Your task to perform on an android device: Do I have any events this weekend? Image 0: 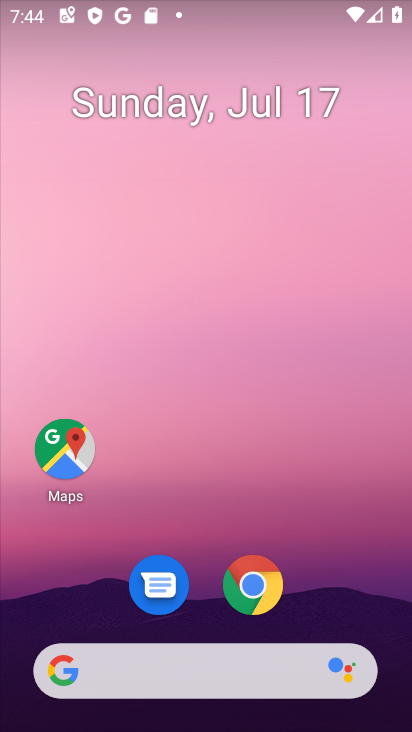
Step 0: drag from (311, 517) to (321, 69)
Your task to perform on an android device: Do I have any events this weekend? Image 1: 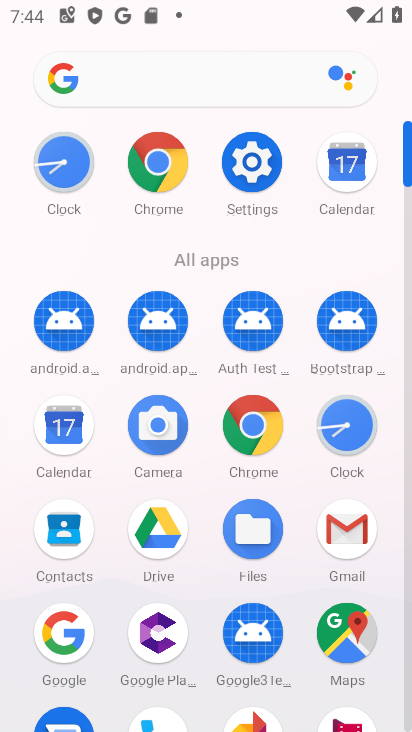
Step 1: click (360, 171)
Your task to perform on an android device: Do I have any events this weekend? Image 2: 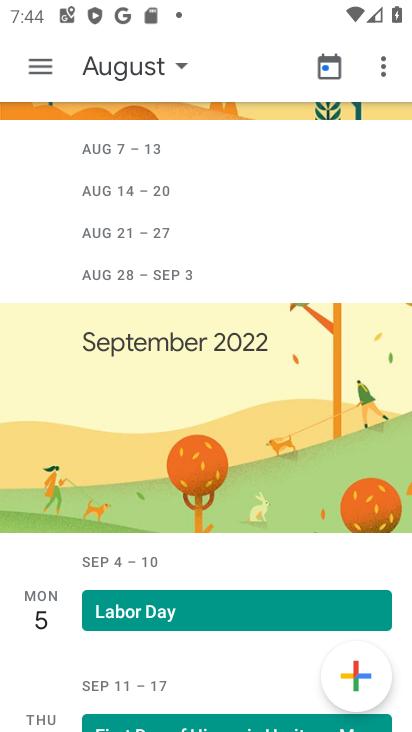
Step 2: click (38, 68)
Your task to perform on an android device: Do I have any events this weekend? Image 3: 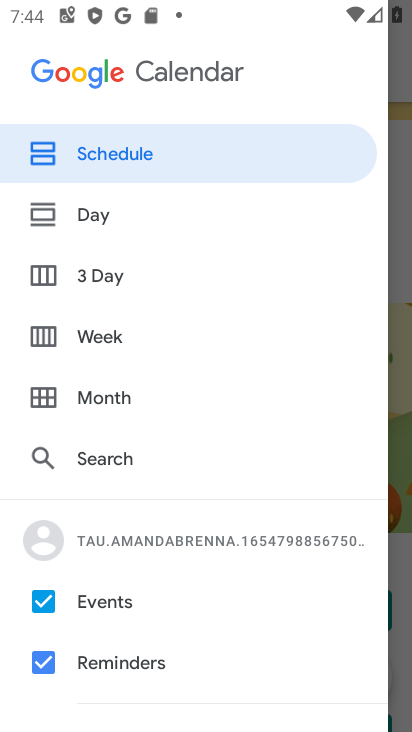
Step 3: click (46, 340)
Your task to perform on an android device: Do I have any events this weekend? Image 4: 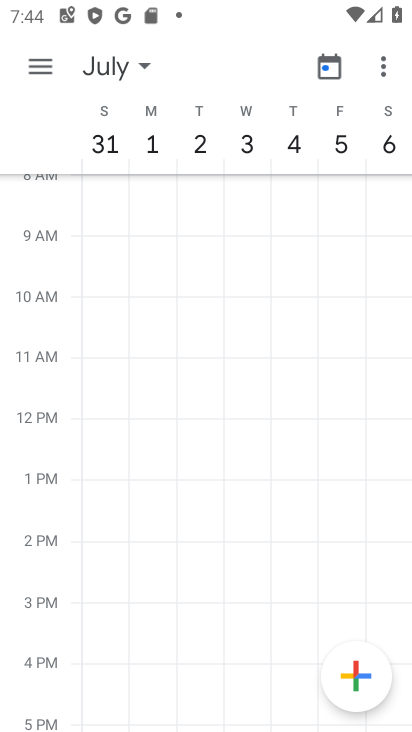
Step 4: drag from (104, 400) to (405, 399)
Your task to perform on an android device: Do I have any events this weekend? Image 5: 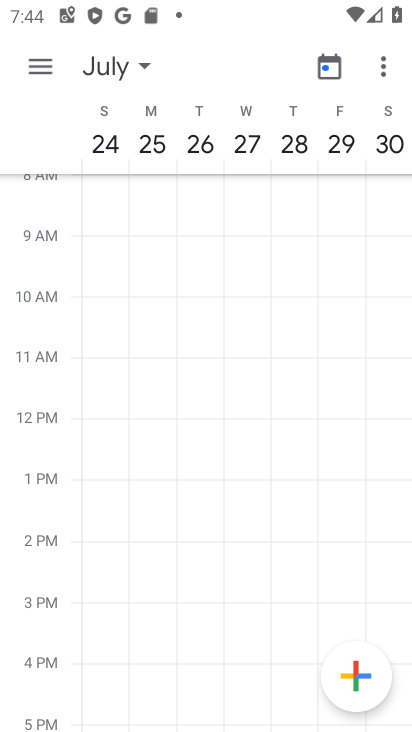
Step 5: drag from (102, 376) to (410, 375)
Your task to perform on an android device: Do I have any events this weekend? Image 6: 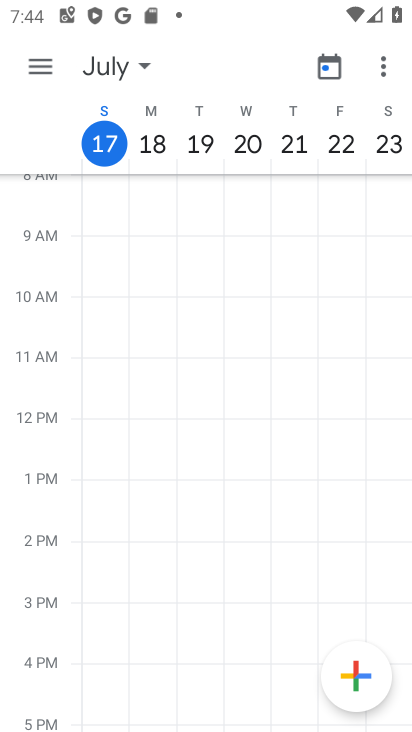
Step 6: click (385, 139)
Your task to perform on an android device: Do I have any events this weekend? Image 7: 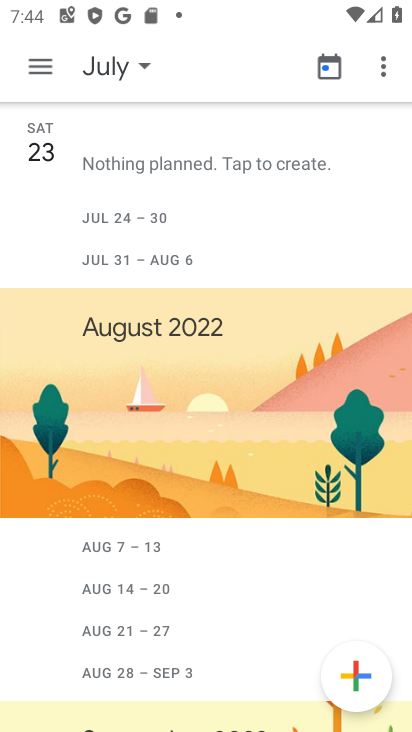
Step 7: task complete